Your task to perform on an android device: move a message to another label in the gmail app Image 0: 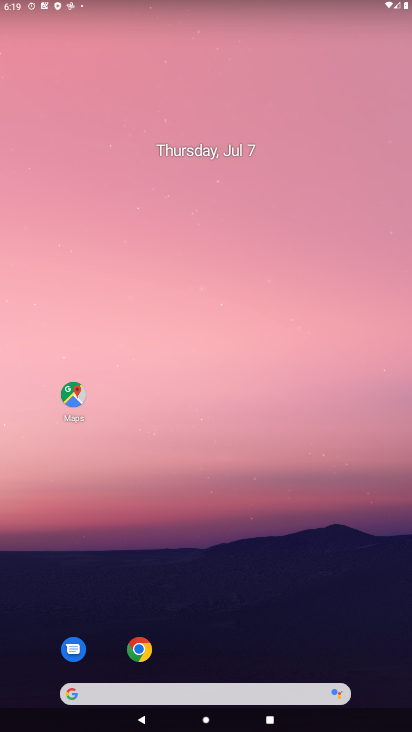
Step 0: drag from (380, 672) to (265, 46)
Your task to perform on an android device: move a message to another label in the gmail app Image 1: 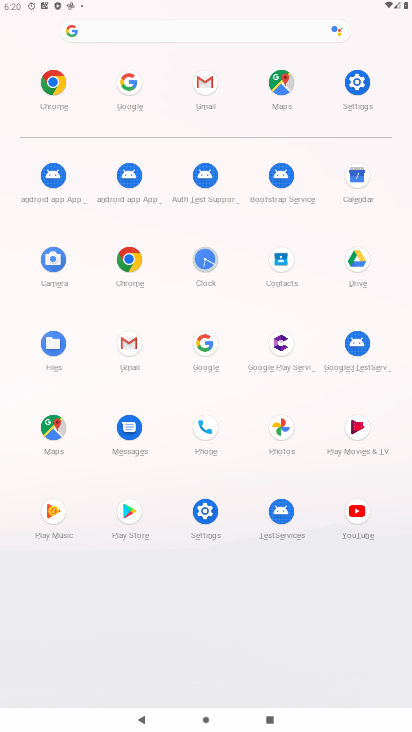
Step 1: click (125, 342)
Your task to perform on an android device: move a message to another label in the gmail app Image 2: 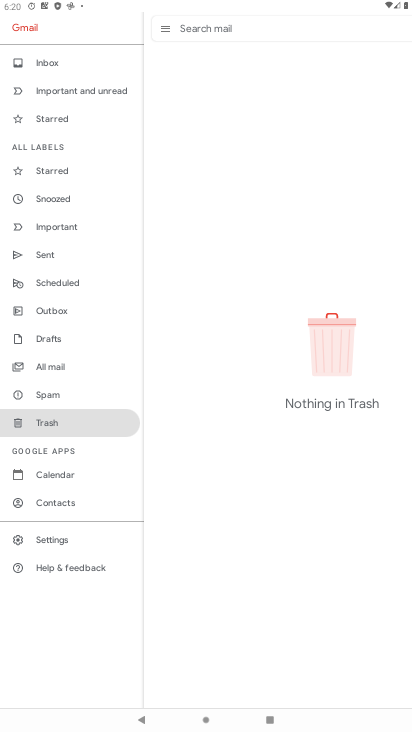
Step 2: task complete